Your task to perform on an android device: toggle data saver in the chrome app Image 0: 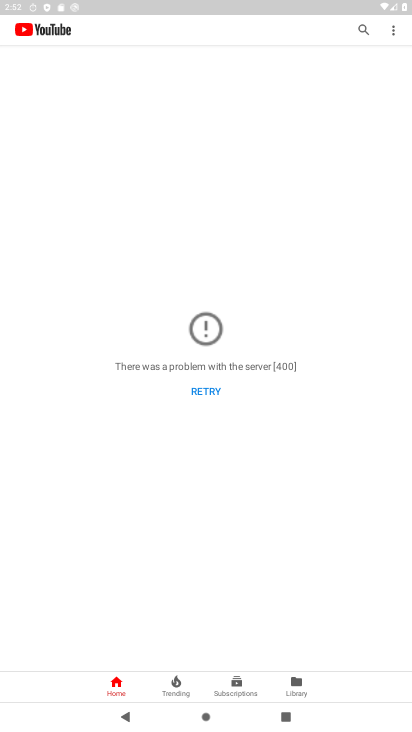
Step 0: drag from (243, 610) to (278, 124)
Your task to perform on an android device: toggle data saver in the chrome app Image 1: 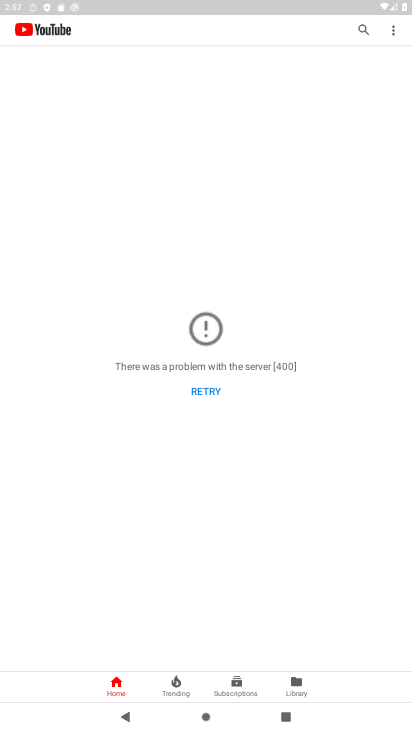
Step 1: press home button
Your task to perform on an android device: toggle data saver in the chrome app Image 2: 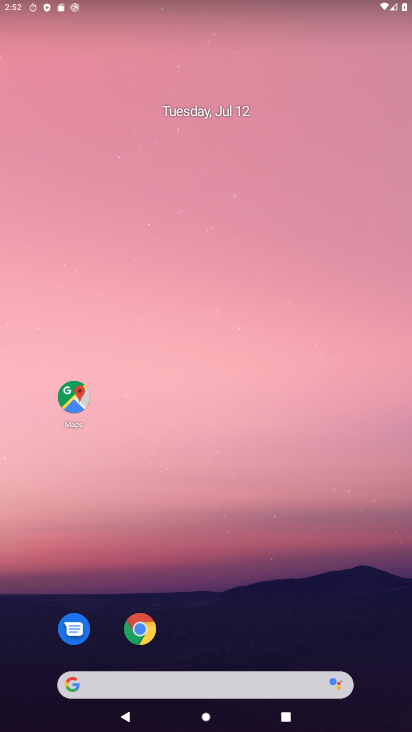
Step 2: drag from (201, 628) to (167, 64)
Your task to perform on an android device: toggle data saver in the chrome app Image 3: 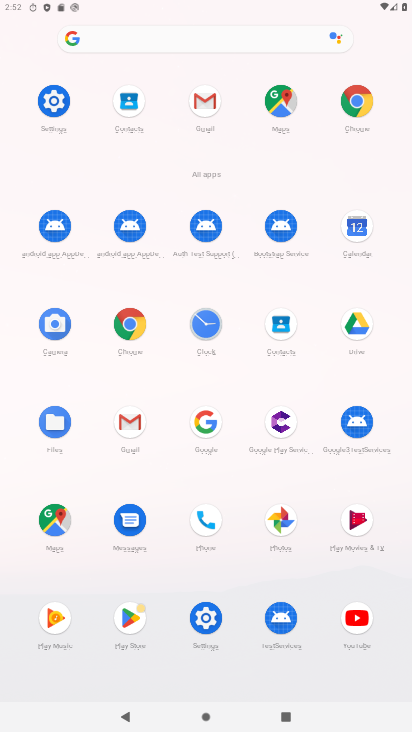
Step 3: click (133, 320)
Your task to perform on an android device: toggle data saver in the chrome app Image 4: 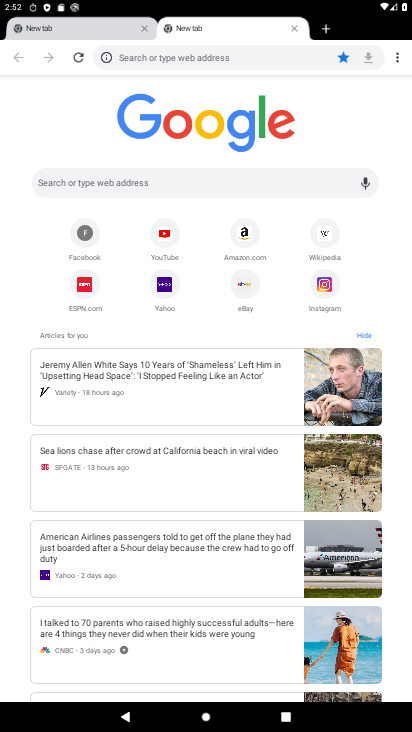
Step 4: drag from (393, 59) to (270, 261)
Your task to perform on an android device: toggle data saver in the chrome app Image 5: 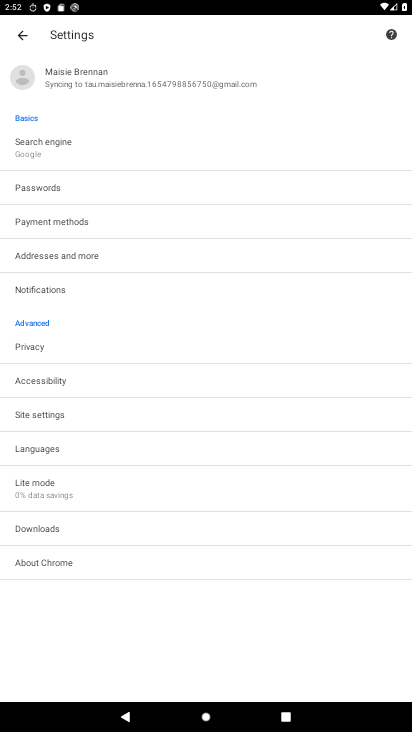
Step 5: drag from (37, 410) to (385, 574)
Your task to perform on an android device: toggle data saver in the chrome app Image 6: 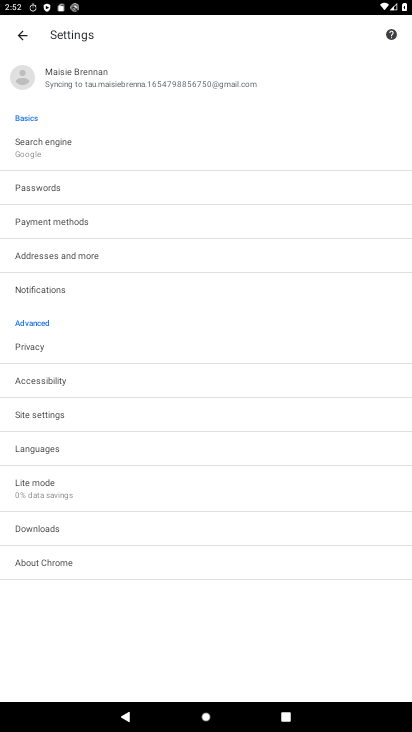
Step 6: click (91, 494)
Your task to perform on an android device: toggle data saver in the chrome app Image 7: 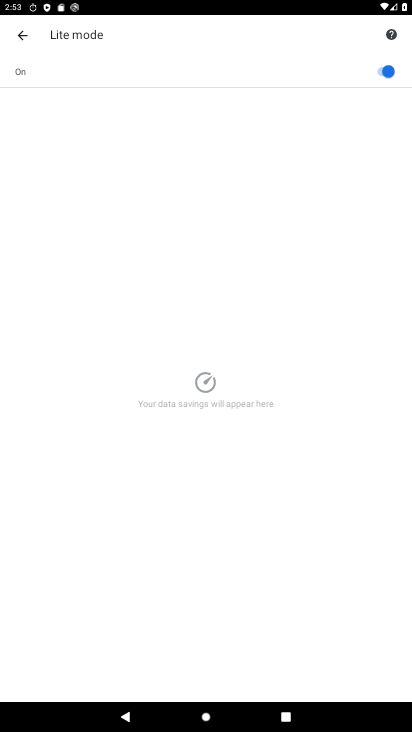
Step 7: press home button
Your task to perform on an android device: toggle data saver in the chrome app Image 8: 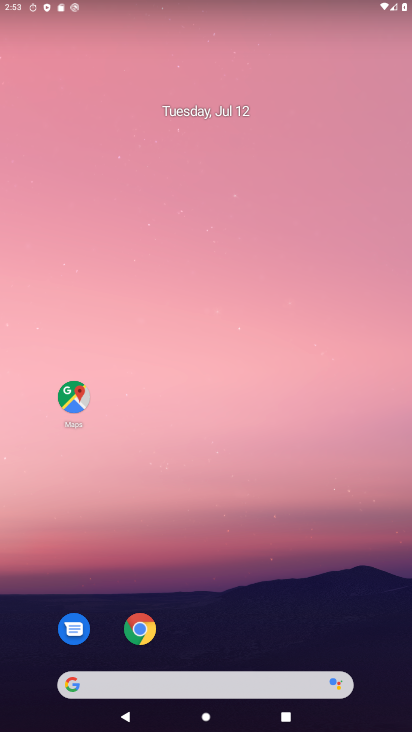
Step 8: drag from (341, 609) to (370, 27)
Your task to perform on an android device: toggle data saver in the chrome app Image 9: 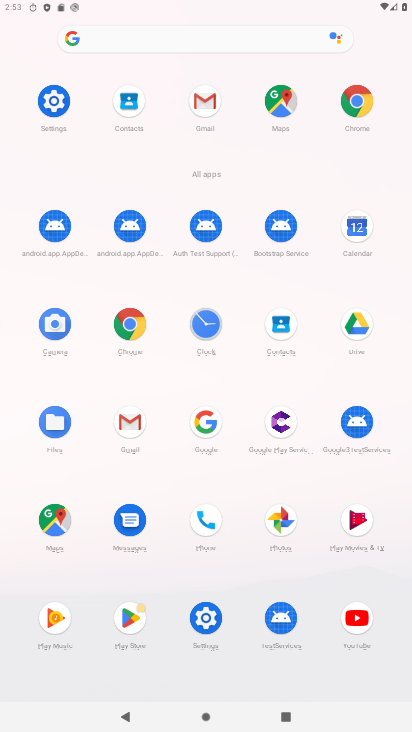
Step 9: click (128, 318)
Your task to perform on an android device: toggle data saver in the chrome app Image 10: 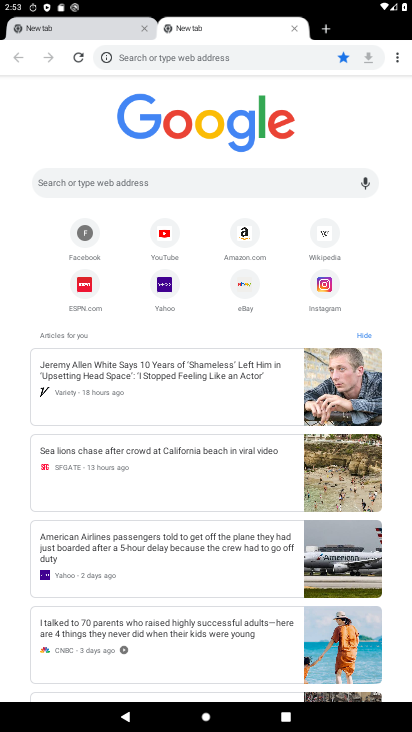
Step 10: drag from (404, 60) to (285, 268)
Your task to perform on an android device: toggle data saver in the chrome app Image 11: 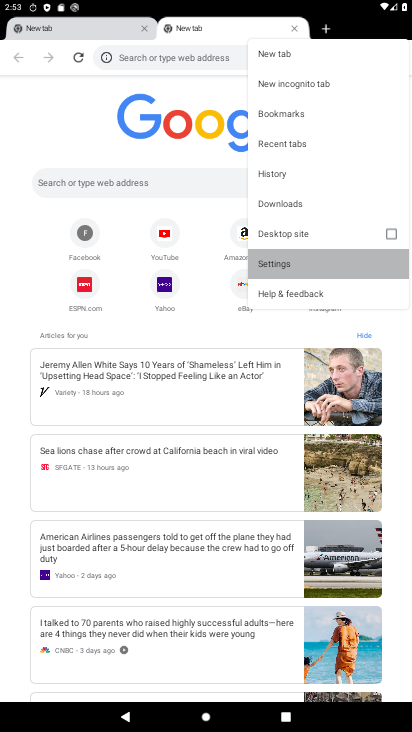
Step 11: click (285, 268)
Your task to perform on an android device: toggle data saver in the chrome app Image 12: 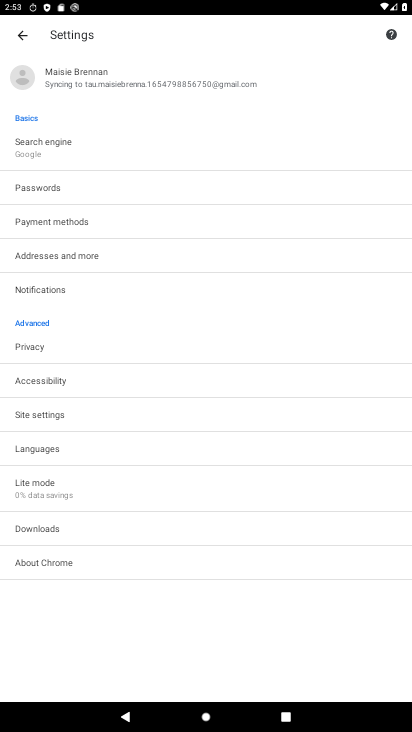
Step 12: click (41, 490)
Your task to perform on an android device: toggle data saver in the chrome app Image 13: 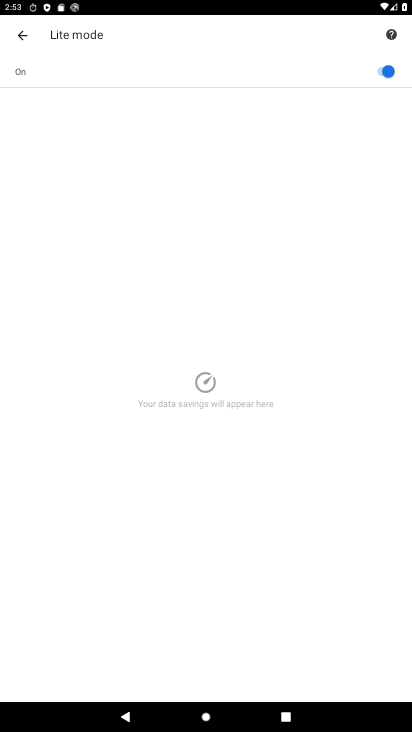
Step 13: click (378, 71)
Your task to perform on an android device: toggle data saver in the chrome app Image 14: 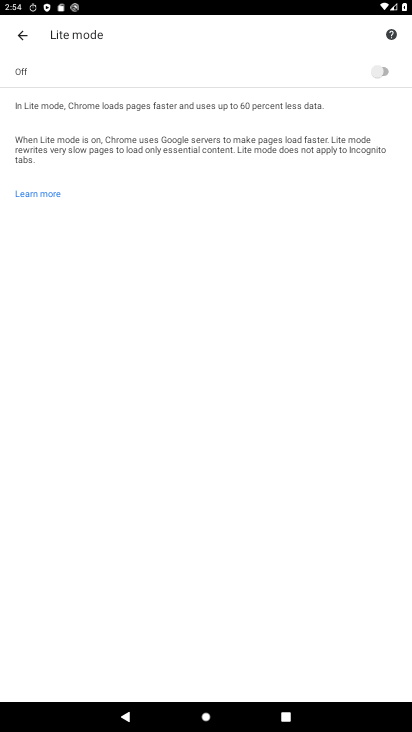
Step 14: task complete